Your task to perform on an android device: Open notification settings Image 0: 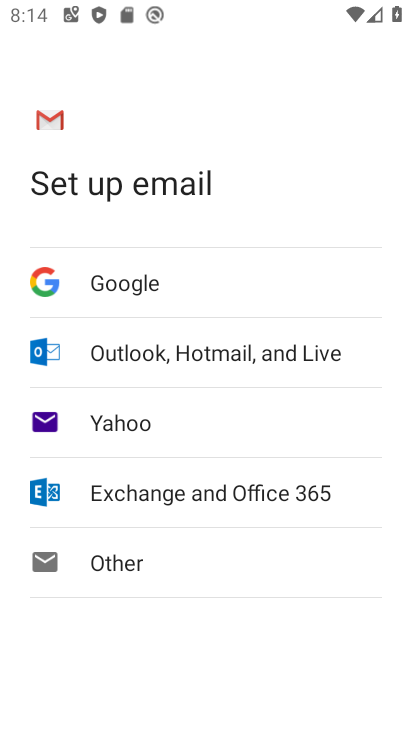
Step 0: press home button
Your task to perform on an android device: Open notification settings Image 1: 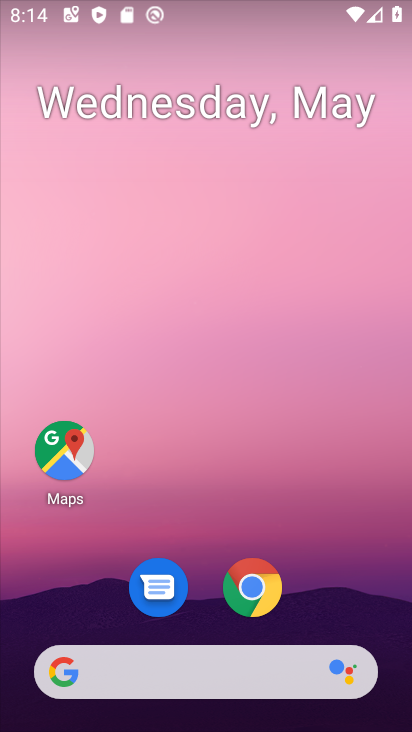
Step 1: drag from (383, 614) to (293, 0)
Your task to perform on an android device: Open notification settings Image 2: 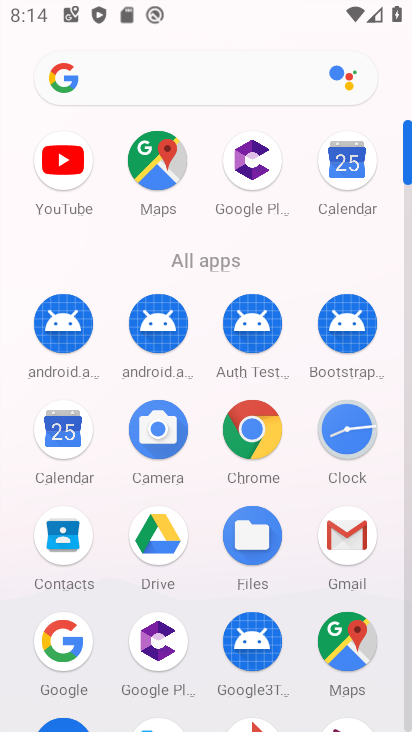
Step 2: click (405, 709)
Your task to perform on an android device: Open notification settings Image 3: 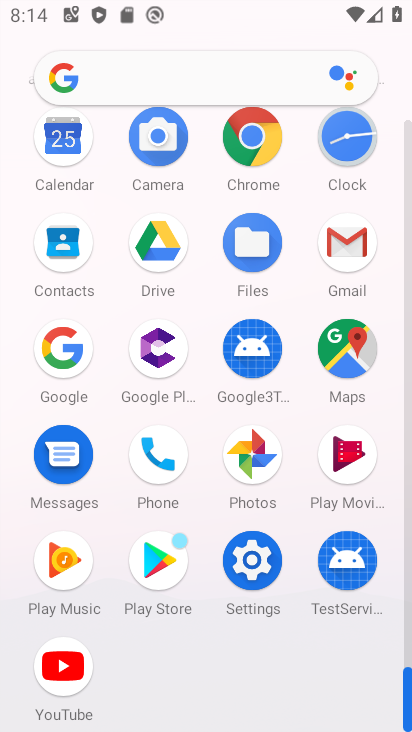
Step 3: click (250, 558)
Your task to perform on an android device: Open notification settings Image 4: 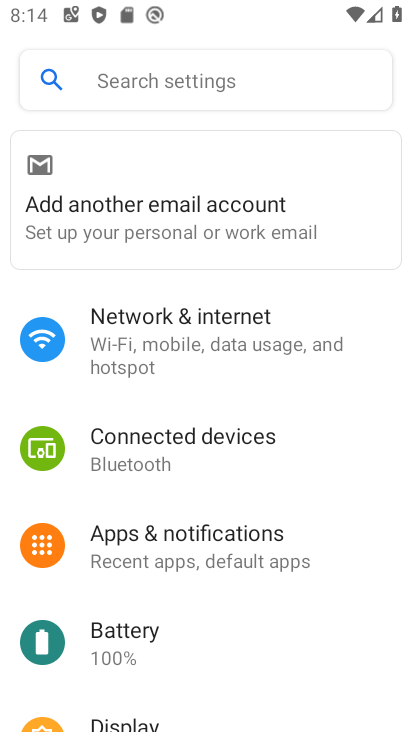
Step 4: click (86, 544)
Your task to perform on an android device: Open notification settings Image 5: 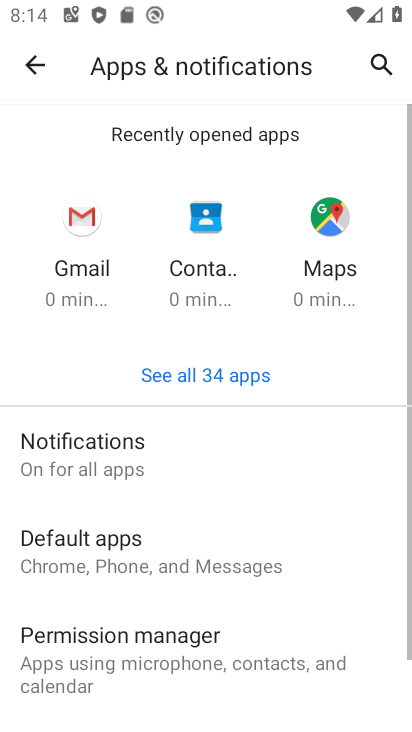
Step 5: drag from (267, 620) to (249, 260)
Your task to perform on an android device: Open notification settings Image 6: 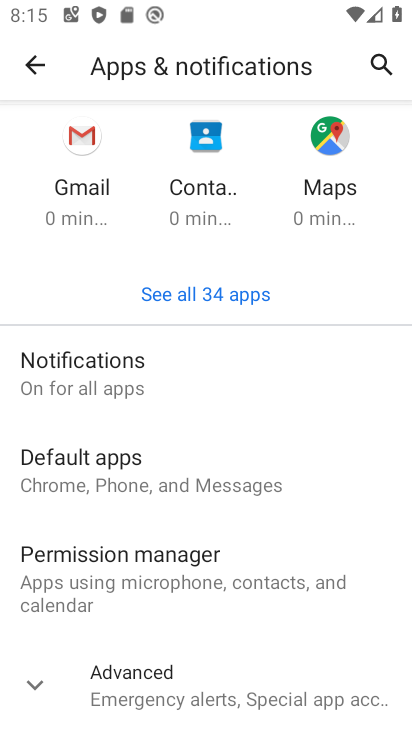
Step 6: click (75, 369)
Your task to perform on an android device: Open notification settings Image 7: 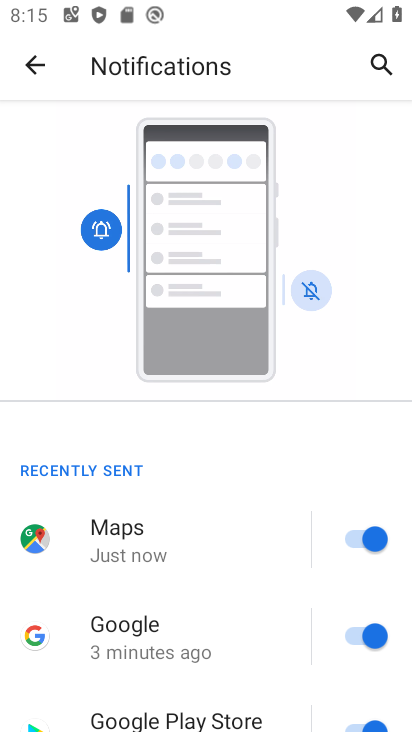
Step 7: drag from (303, 682) to (213, 110)
Your task to perform on an android device: Open notification settings Image 8: 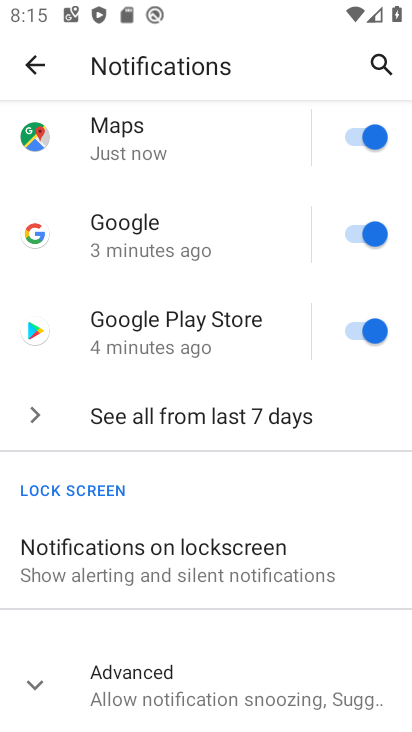
Step 8: click (31, 686)
Your task to perform on an android device: Open notification settings Image 9: 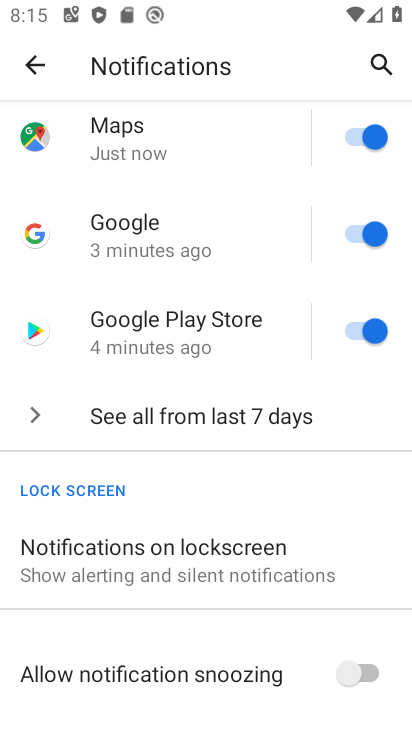
Step 9: task complete